Your task to perform on an android device: Is it going to rain tomorrow? Image 0: 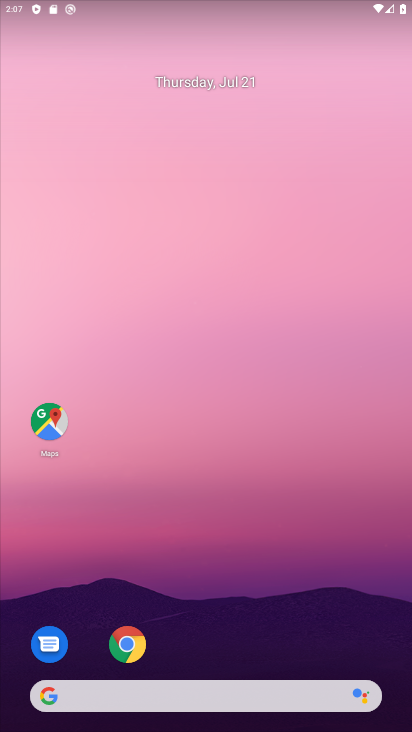
Step 0: drag from (270, 641) to (176, 181)
Your task to perform on an android device: Is it going to rain tomorrow? Image 1: 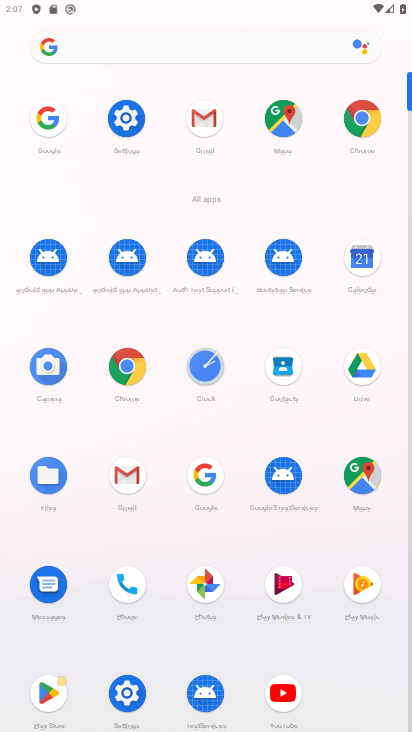
Step 1: click (370, 127)
Your task to perform on an android device: Is it going to rain tomorrow? Image 2: 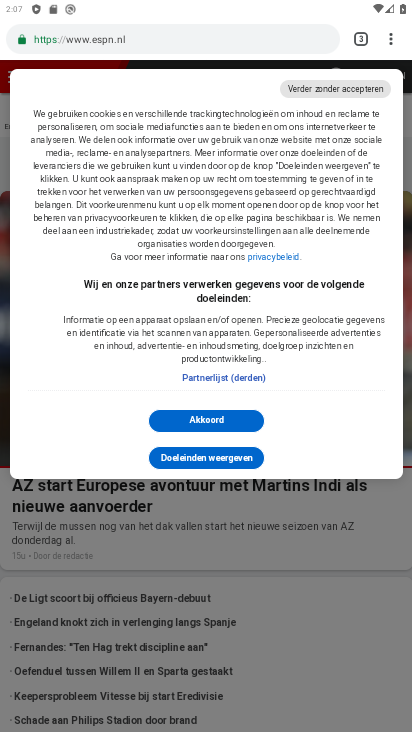
Step 2: click (168, 48)
Your task to perform on an android device: Is it going to rain tomorrow? Image 3: 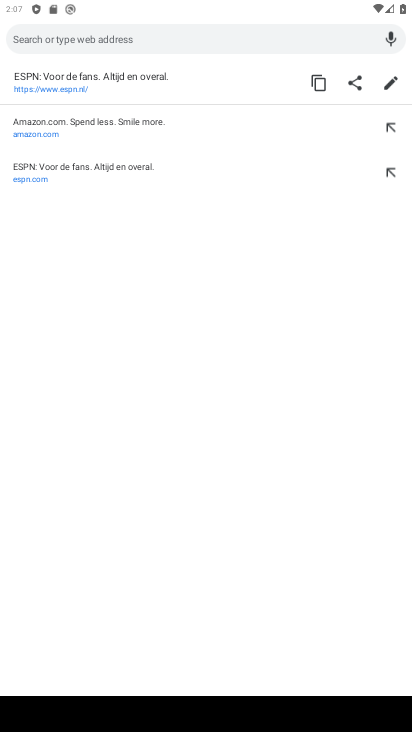
Step 3: type "Is it going to rain tomorrow?"
Your task to perform on an android device: Is it going to rain tomorrow? Image 4: 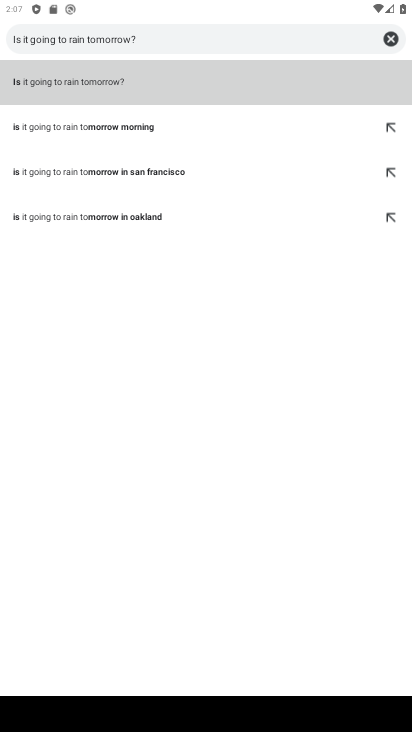
Step 4: click (198, 86)
Your task to perform on an android device: Is it going to rain tomorrow? Image 5: 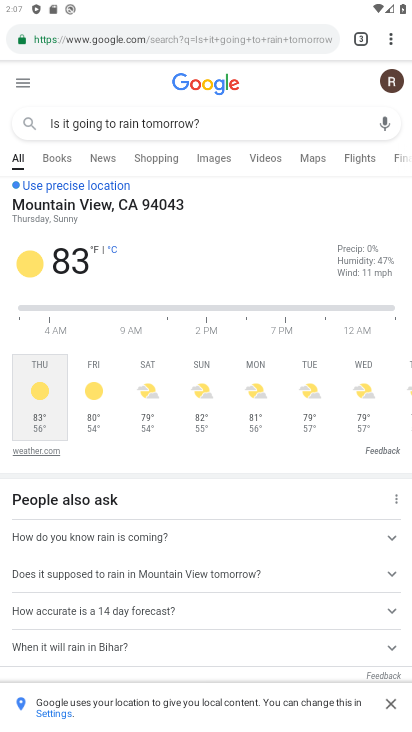
Step 5: task complete